Your task to perform on an android device: turn off location history Image 0: 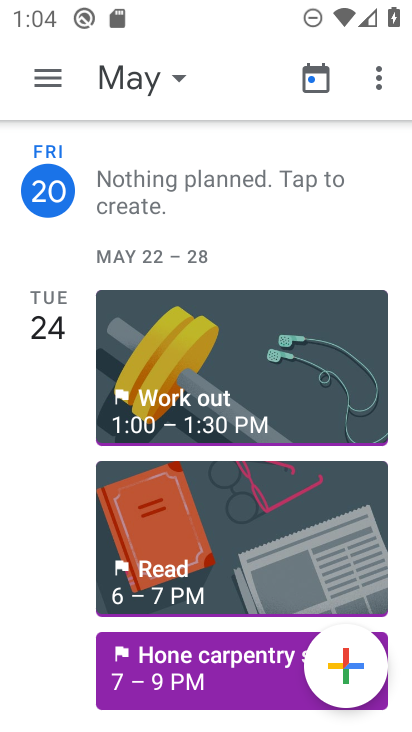
Step 0: press home button
Your task to perform on an android device: turn off location history Image 1: 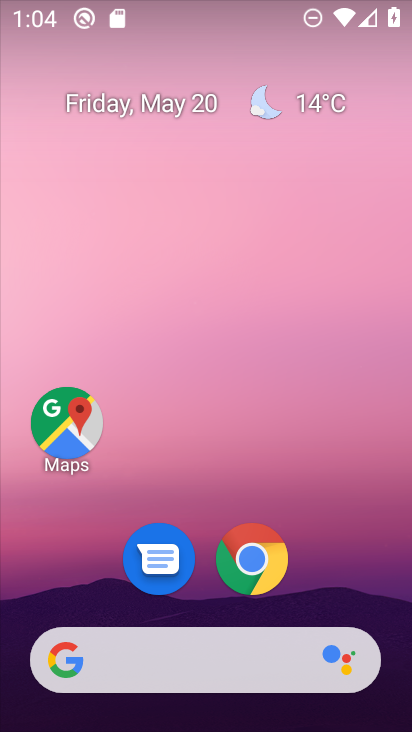
Step 1: drag from (367, 593) to (338, 76)
Your task to perform on an android device: turn off location history Image 2: 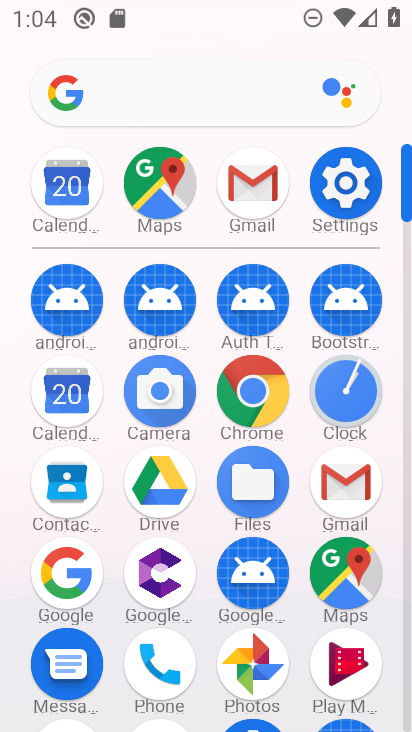
Step 2: click (344, 194)
Your task to perform on an android device: turn off location history Image 3: 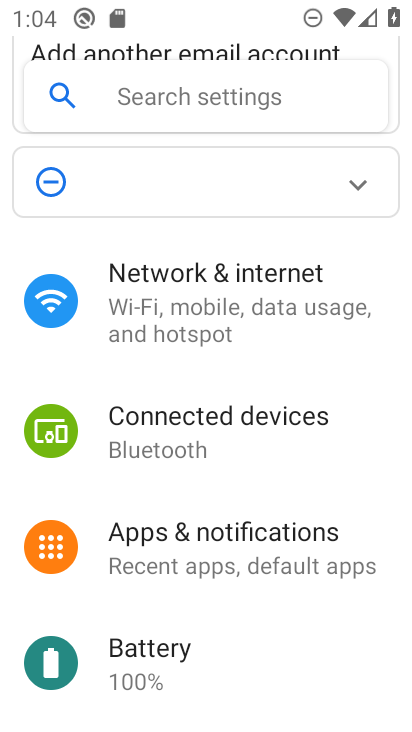
Step 3: drag from (210, 500) to (180, 392)
Your task to perform on an android device: turn off location history Image 4: 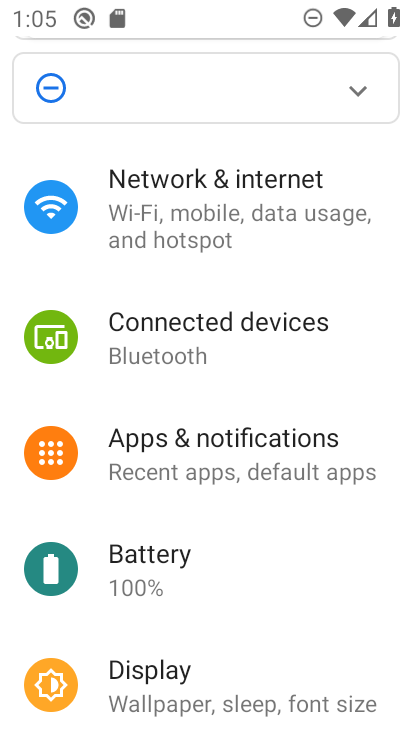
Step 4: drag from (201, 613) to (175, 484)
Your task to perform on an android device: turn off location history Image 5: 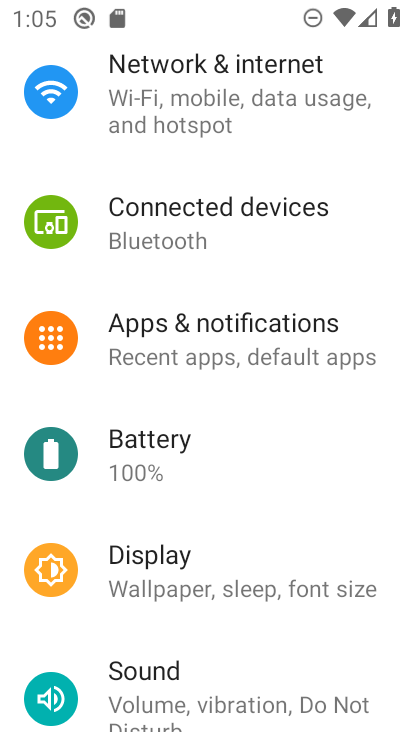
Step 5: drag from (209, 645) to (136, 385)
Your task to perform on an android device: turn off location history Image 6: 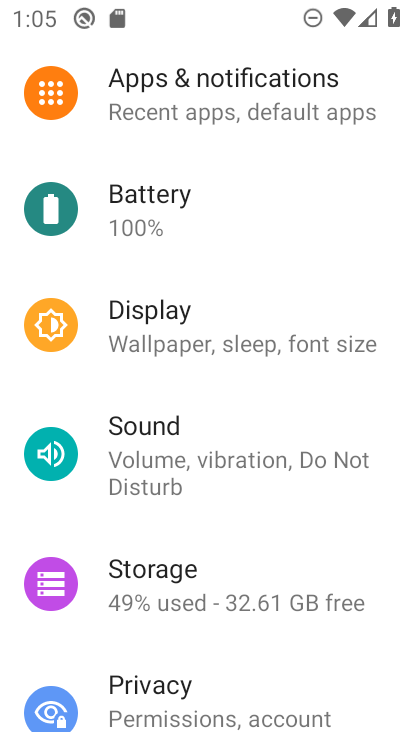
Step 6: drag from (224, 627) to (149, 241)
Your task to perform on an android device: turn off location history Image 7: 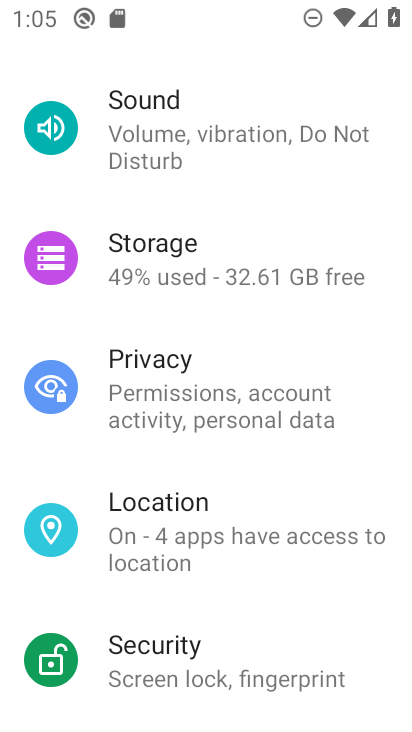
Step 7: click (209, 519)
Your task to perform on an android device: turn off location history Image 8: 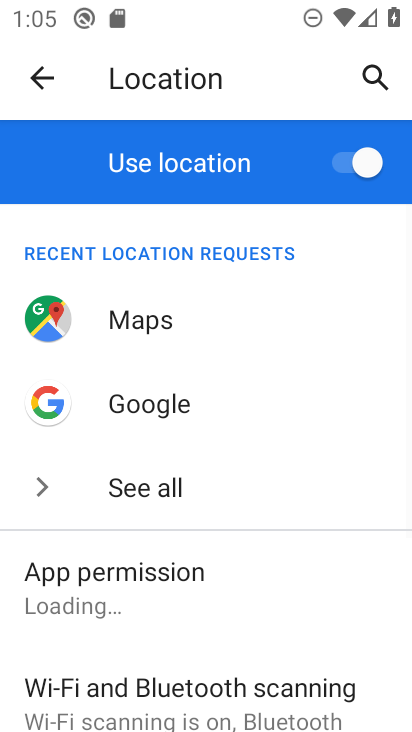
Step 8: click (335, 183)
Your task to perform on an android device: turn off location history Image 9: 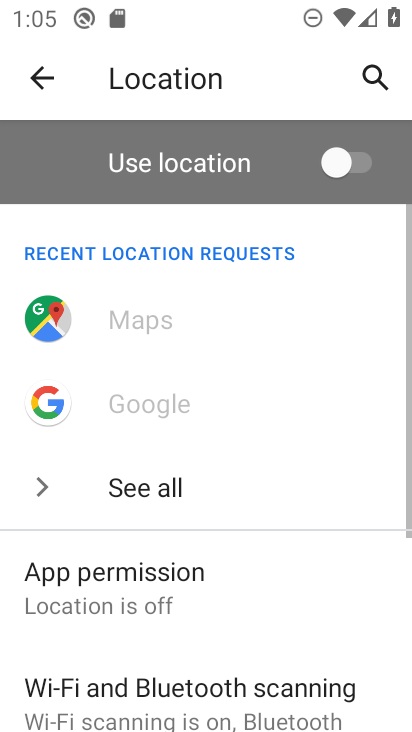
Step 9: task complete